Your task to perform on an android device: change the clock display to show seconds Image 0: 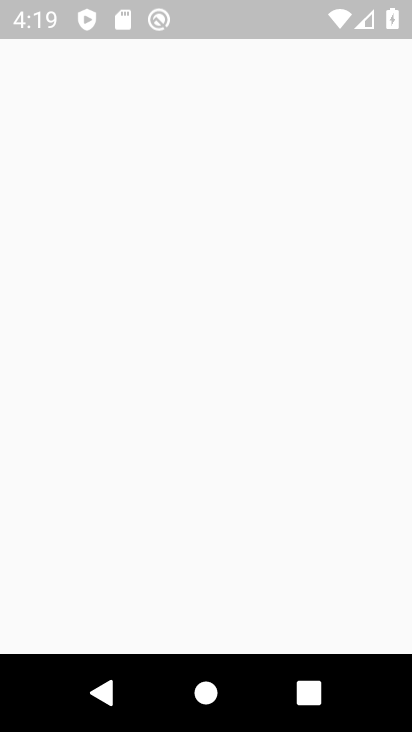
Step 0: press home button
Your task to perform on an android device: change the clock display to show seconds Image 1: 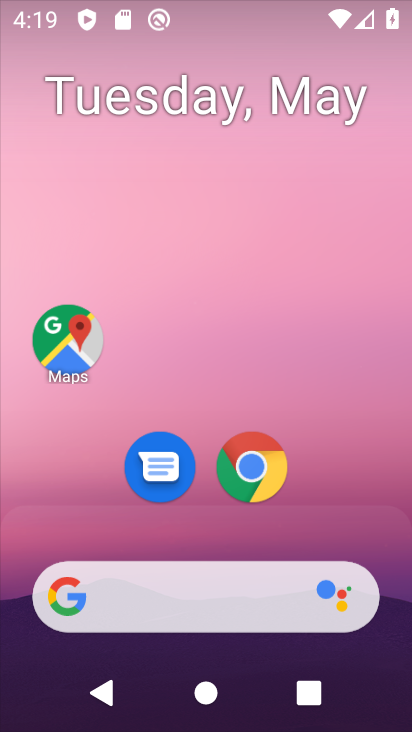
Step 1: drag from (150, 563) to (252, 69)
Your task to perform on an android device: change the clock display to show seconds Image 2: 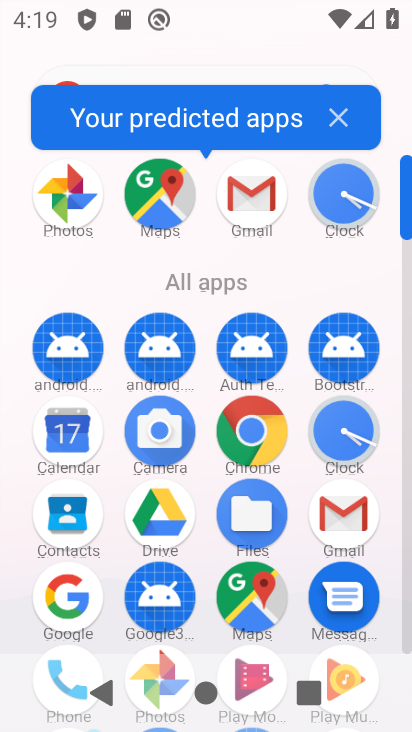
Step 2: click (352, 440)
Your task to perform on an android device: change the clock display to show seconds Image 3: 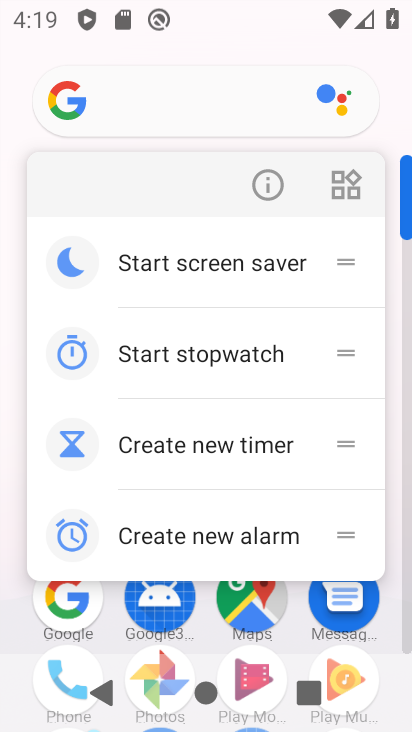
Step 3: press back button
Your task to perform on an android device: change the clock display to show seconds Image 4: 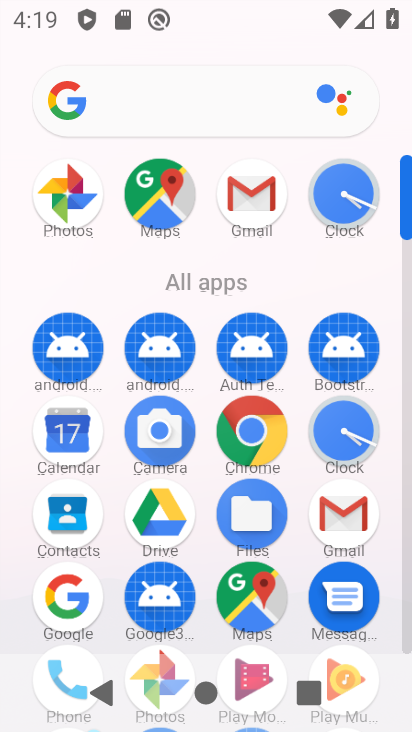
Step 4: click (332, 428)
Your task to perform on an android device: change the clock display to show seconds Image 5: 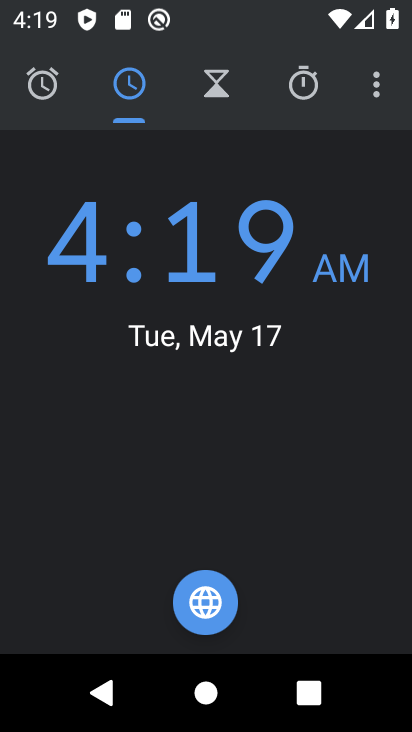
Step 5: click (373, 90)
Your task to perform on an android device: change the clock display to show seconds Image 6: 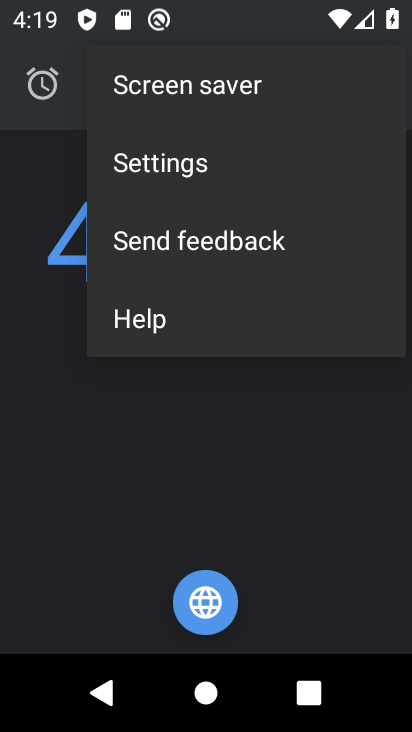
Step 6: click (326, 144)
Your task to perform on an android device: change the clock display to show seconds Image 7: 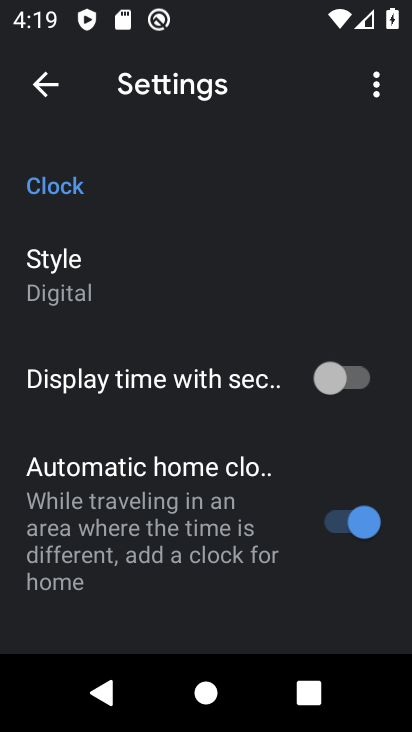
Step 7: click (370, 387)
Your task to perform on an android device: change the clock display to show seconds Image 8: 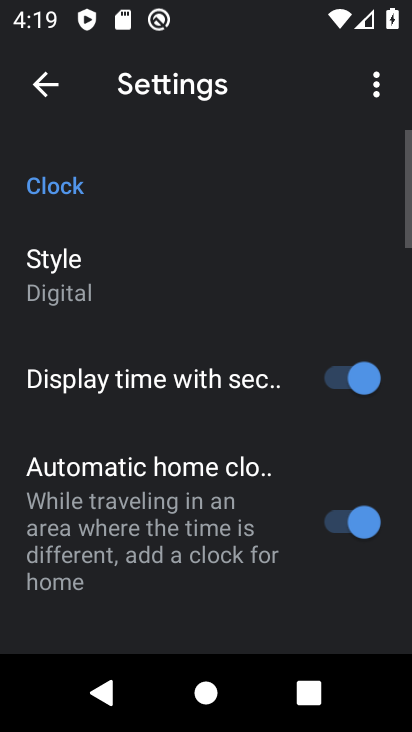
Step 8: task complete